Your task to perform on an android device: Go to Yahoo.com Image 0: 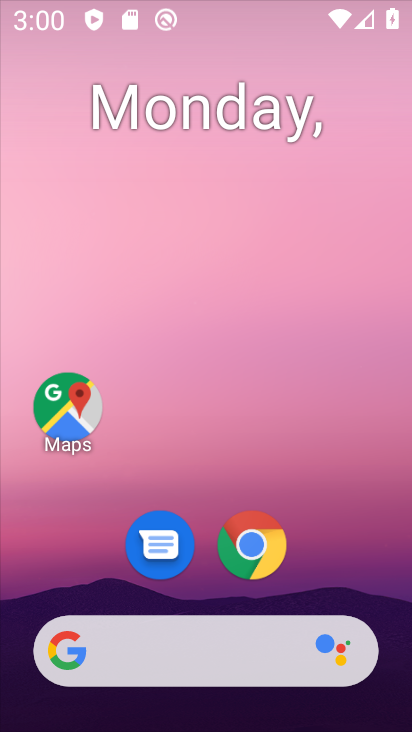
Step 0: drag from (220, 444) to (294, 121)
Your task to perform on an android device: Go to Yahoo.com Image 1: 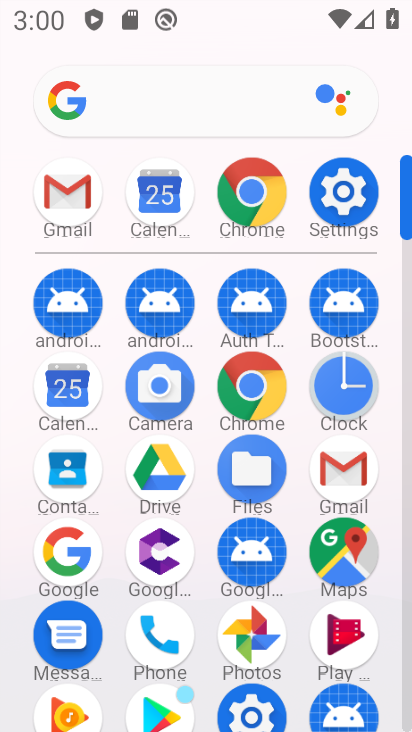
Step 1: click (247, 405)
Your task to perform on an android device: Go to Yahoo.com Image 2: 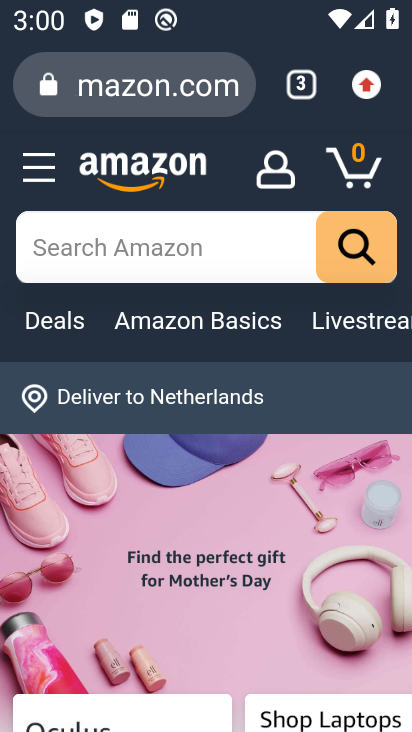
Step 2: click (284, 79)
Your task to perform on an android device: Go to Yahoo.com Image 3: 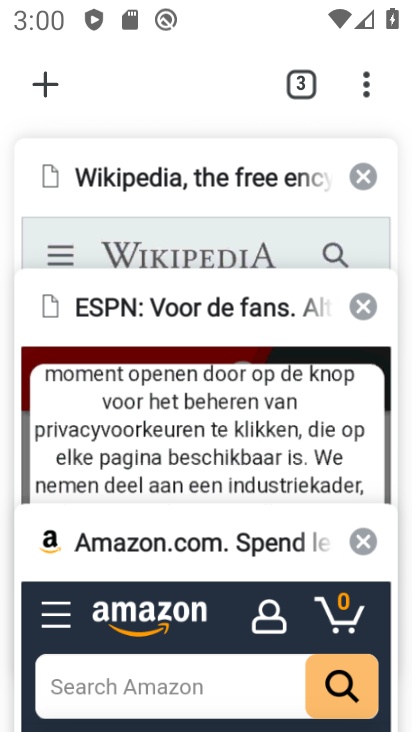
Step 3: click (43, 79)
Your task to perform on an android device: Go to Yahoo.com Image 4: 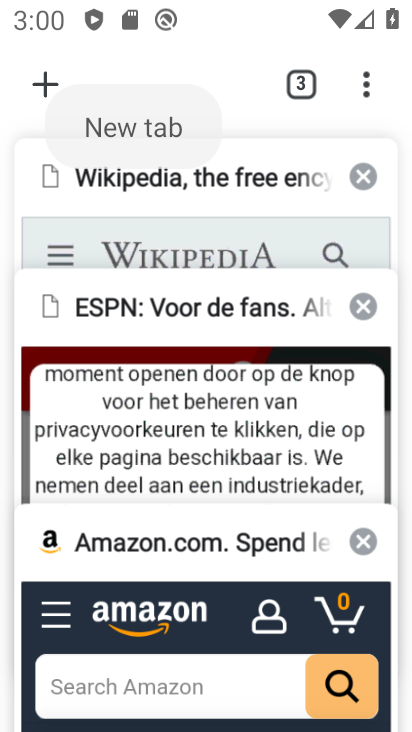
Step 4: click (43, 79)
Your task to perform on an android device: Go to Yahoo.com Image 5: 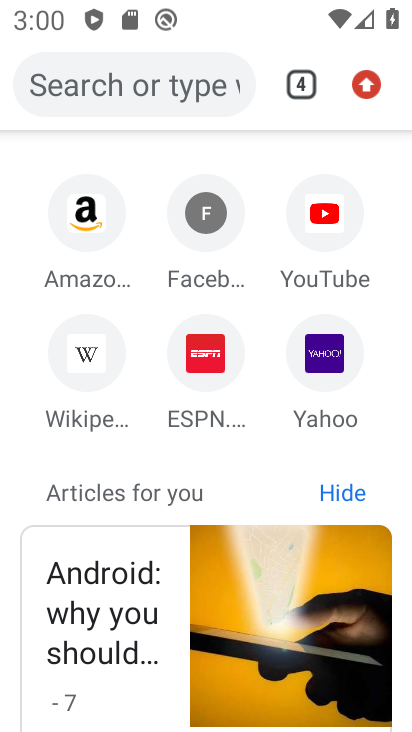
Step 5: click (314, 371)
Your task to perform on an android device: Go to Yahoo.com Image 6: 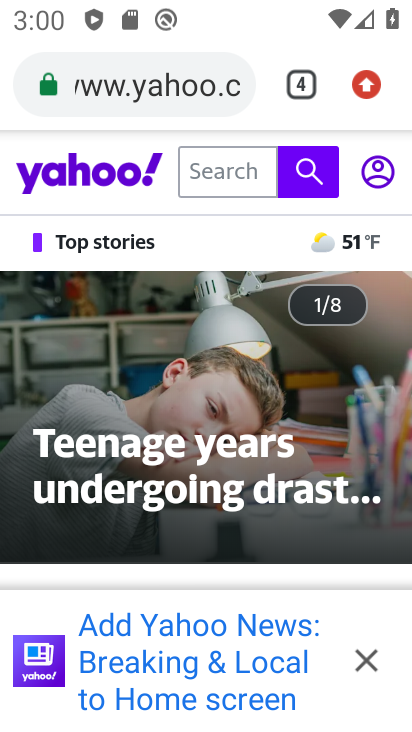
Step 6: task complete